Your task to perform on an android device: change the upload size in google photos Image 0: 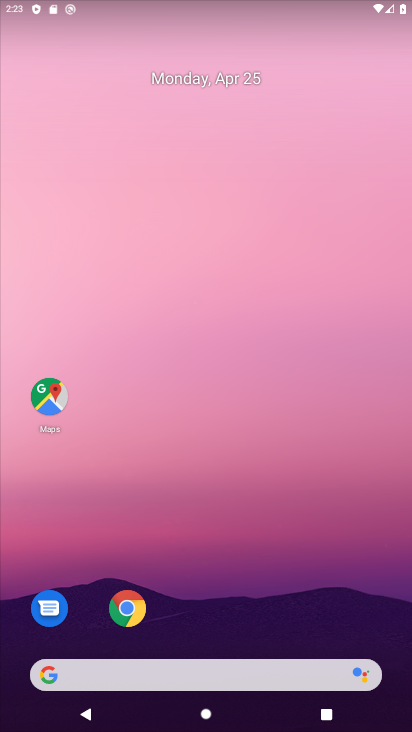
Step 0: drag from (360, 627) to (361, 342)
Your task to perform on an android device: change the upload size in google photos Image 1: 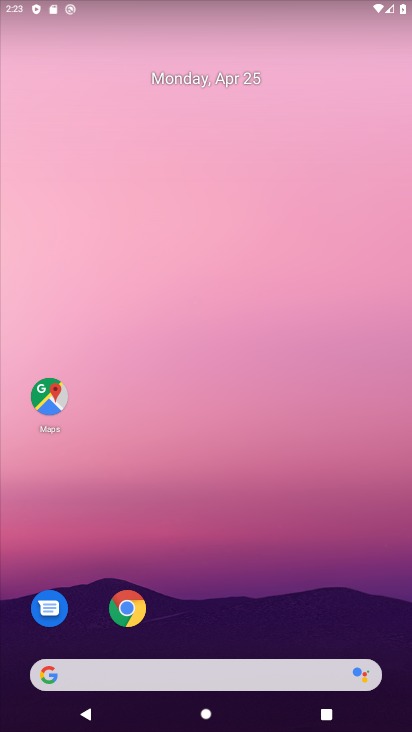
Step 1: drag from (308, 576) to (367, 181)
Your task to perform on an android device: change the upload size in google photos Image 2: 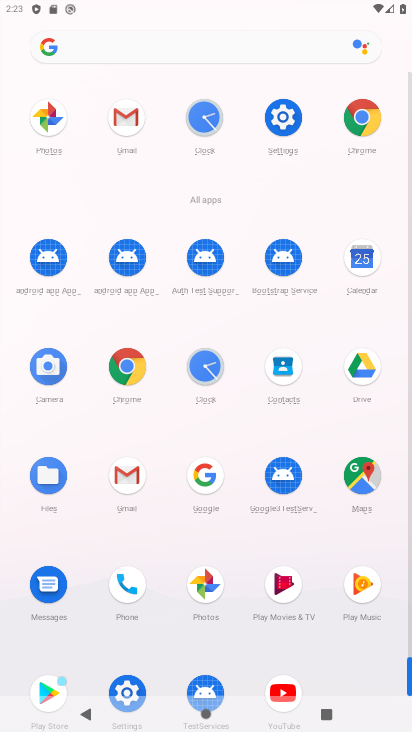
Step 2: click (211, 587)
Your task to perform on an android device: change the upload size in google photos Image 3: 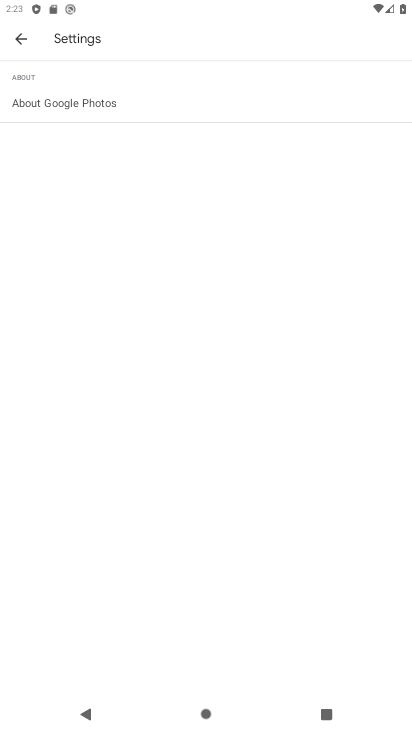
Step 3: click (29, 46)
Your task to perform on an android device: change the upload size in google photos Image 4: 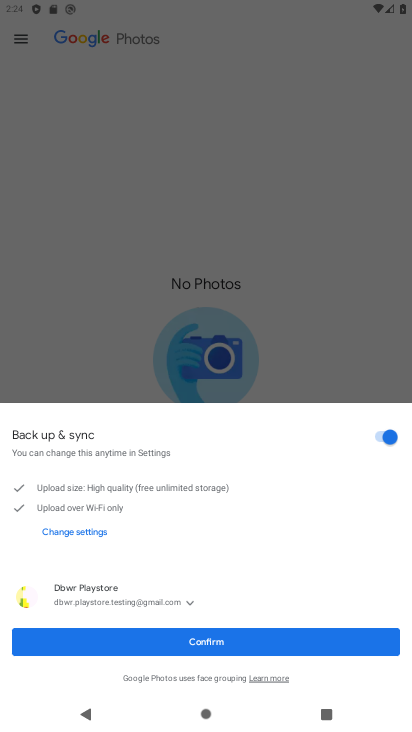
Step 4: click (302, 631)
Your task to perform on an android device: change the upload size in google photos Image 5: 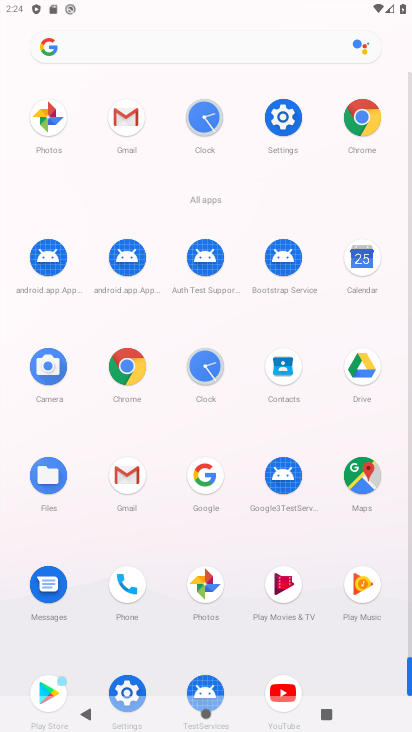
Step 5: click (198, 591)
Your task to perform on an android device: change the upload size in google photos Image 6: 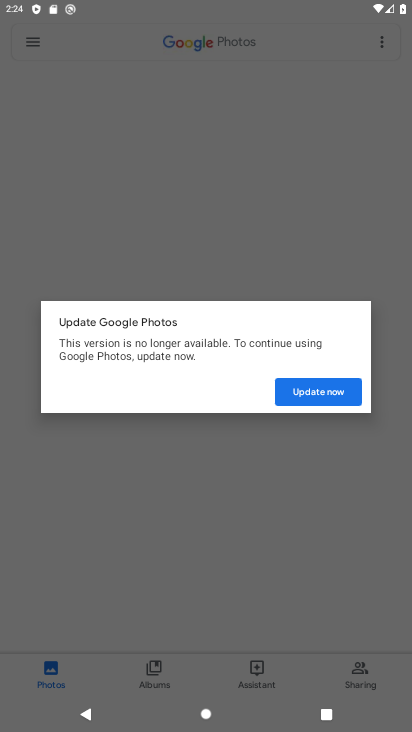
Step 6: click (298, 387)
Your task to perform on an android device: change the upload size in google photos Image 7: 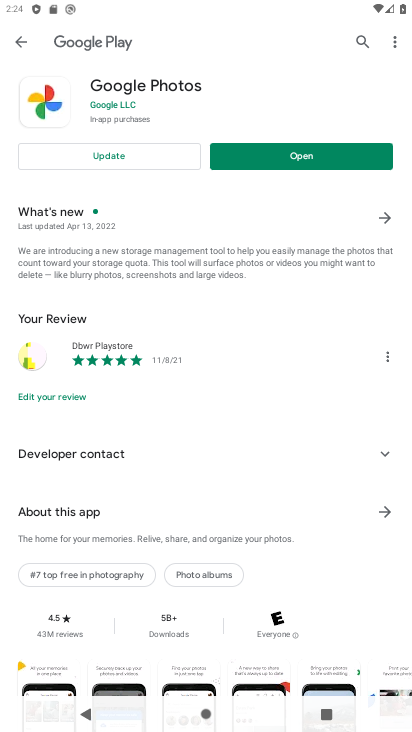
Step 7: click (111, 172)
Your task to perform on an android device: change the upload size in google photos Image 8: 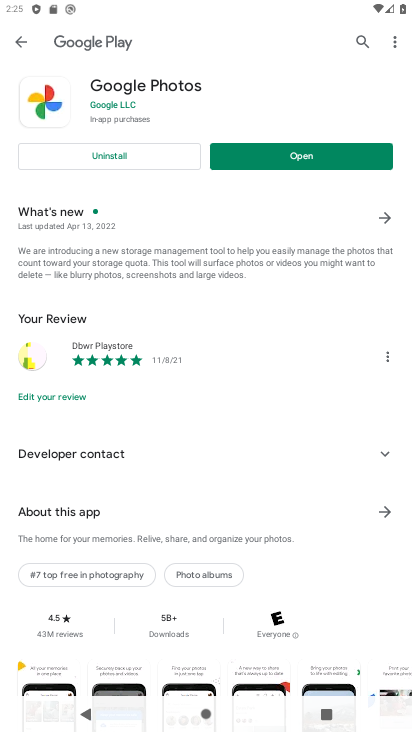
Step 8: click (356, 144)
Your task to perform on an android device: change the upload size in google photos Image 9: 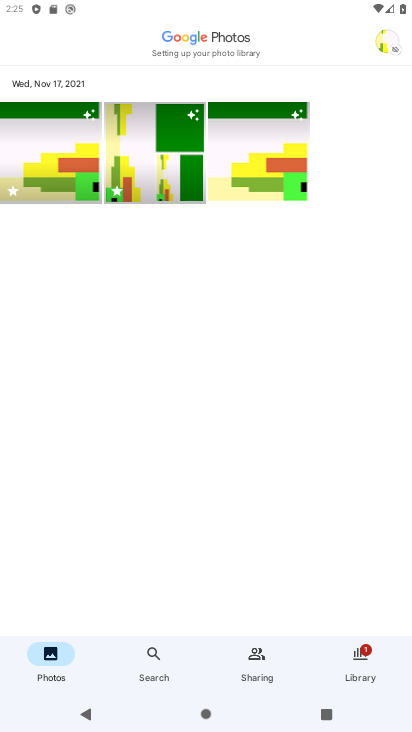
Step 9: click (387, 50)
Your task to perform on an android device: change the upload size in google photos Image 10: 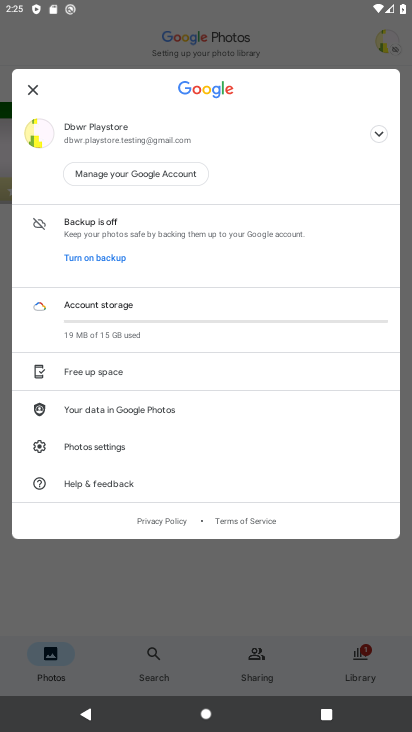
Step 10: drag from (255, 276) to (242, 386)
Your task to perform on an android device: change the upload size in google photos Image 11: 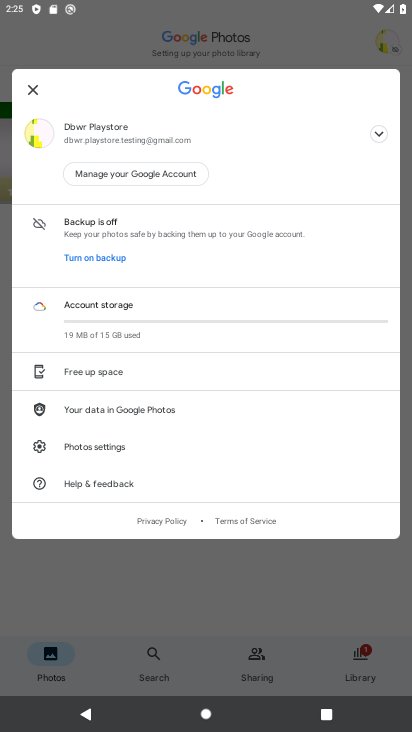
Step 11: drag from (211, 466) to (239, 295)
Your task to perform on an android device: change the upload size in google photos Image 12: 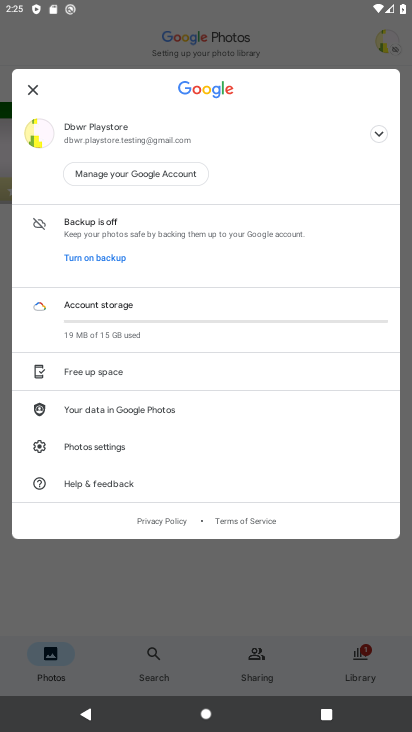
Step 12: drag from (256, 248) to (243, 338)
Your task to perform on an android device: change the upload size in google photos Image 13: 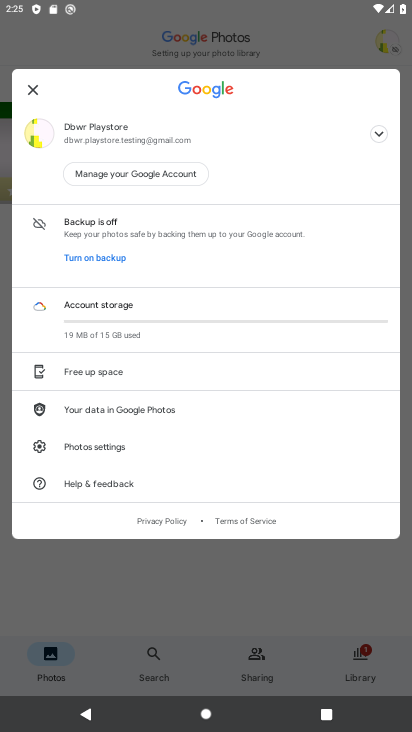
Step 13: click (146, 306)
Your task to perform on an android device: change the upload size in google photos Image 14: 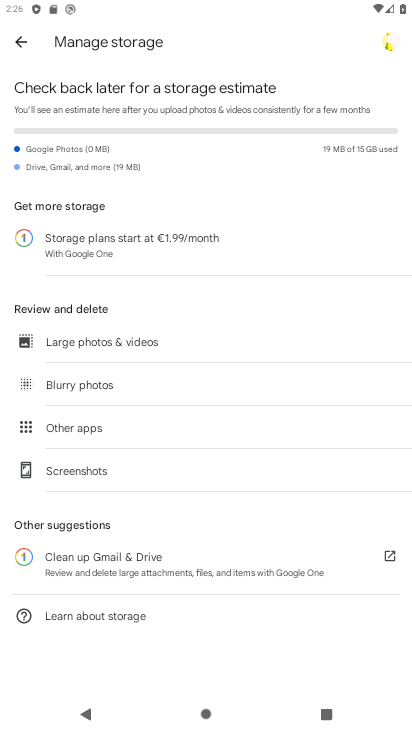
Step 14: click (14, 41)
Your task to perform on an android device: change the upload size in google photos Image 15: 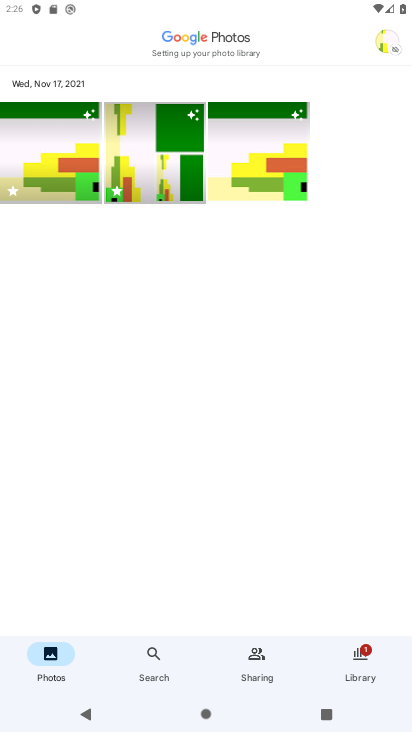
Step 15: click (385, 52)
Your task to perform on an android device: change the upload size in google photos Image 16: 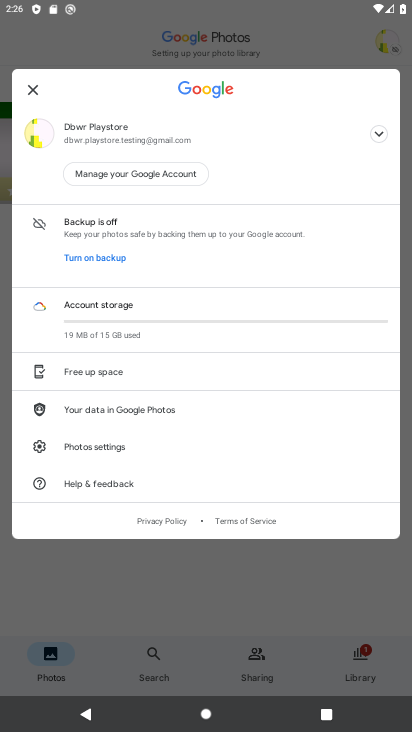
Step 16: drag from (258, 414) to (282, 268)
Your task to perform on an android device: change the upload size in google photos Image 17: 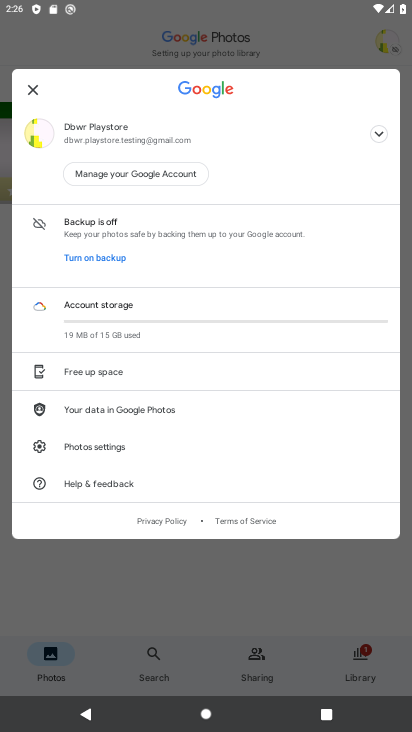
Step 17: drag from (291, 178) to (284, 428)
Your task to perform on an android device: change the upload size in google photos Image 18: 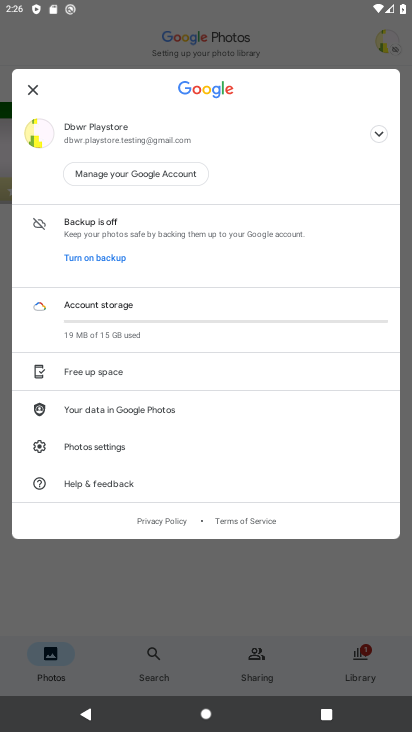
Step 18: click (136, 227)
Your task to perform on an android device: change the upload size in google photos Image 19: 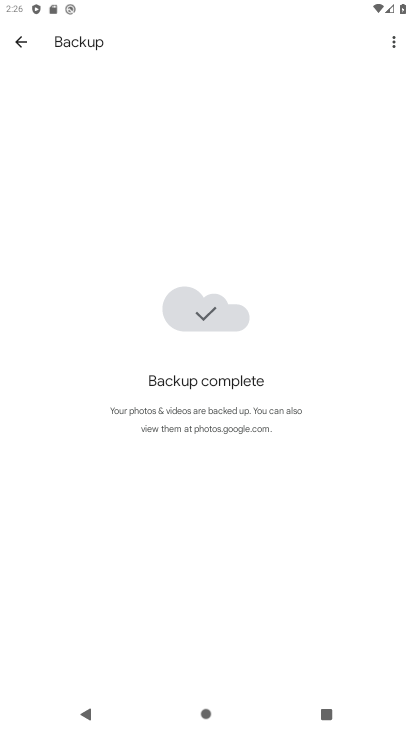
Step 19: task complete